Your task to perform on an android device: clear history in the chrome app Image 0: 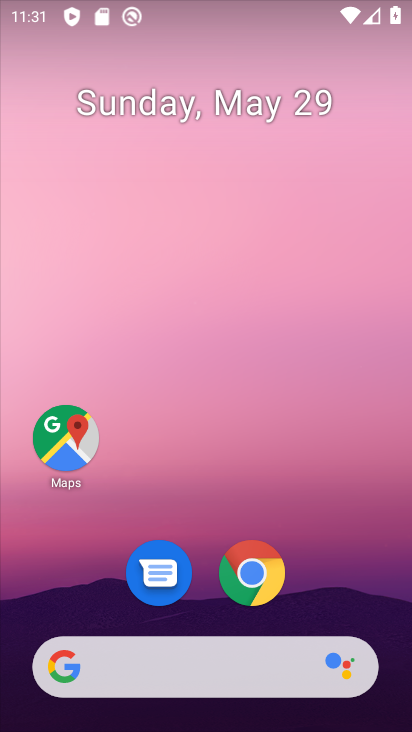
Step 0: click (236, 579)
Your task to perform on an android device: clear history in the chrome app Image 1: 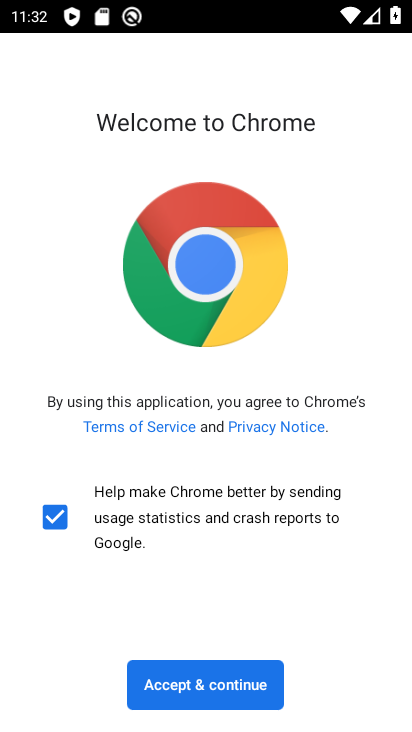
Step 1: click (233, 697)
Your task to perform on an android device: clear history in the chrome app Image 2: 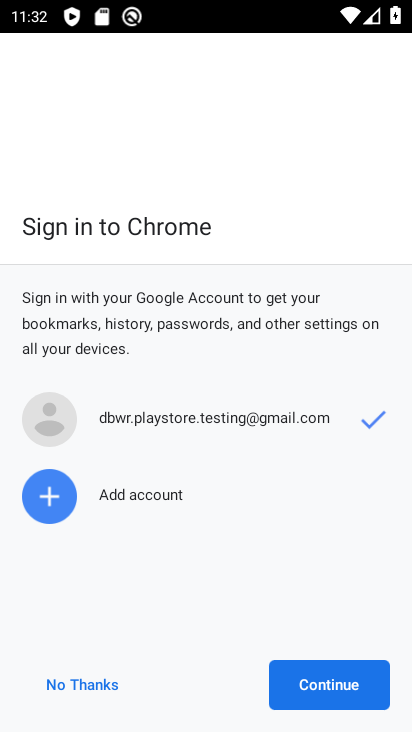
Step 2: click (302, 686)
Your task to perform on an android device: clear history in the chrome app Image 3: 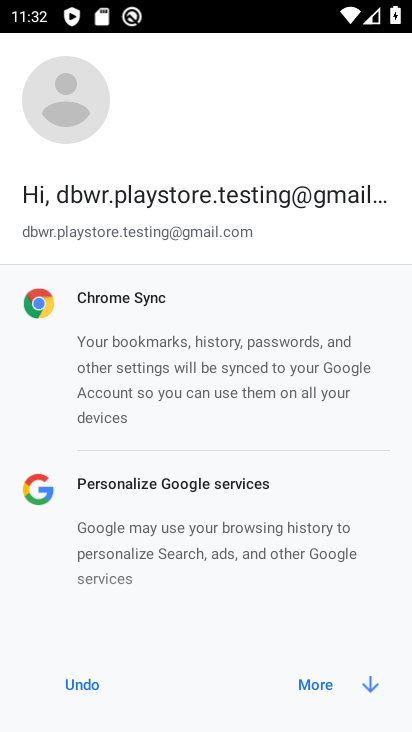
Step 3: click (339, 685)
Your task to perform on an android device: clear history in the chrome app Image 4: 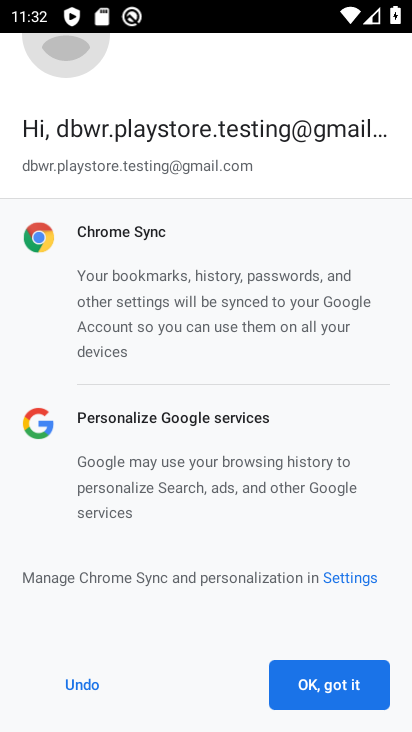
Step 4: click (345, 696)
Your task to perform on an android device: clear history in the chrome app Image 5: 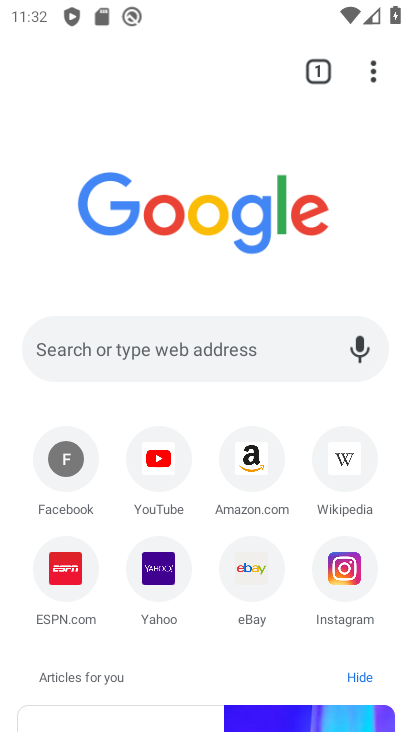
Step 5: task complete